Your task to perform on an android device: clear all cookies in the chrome app Image 0: 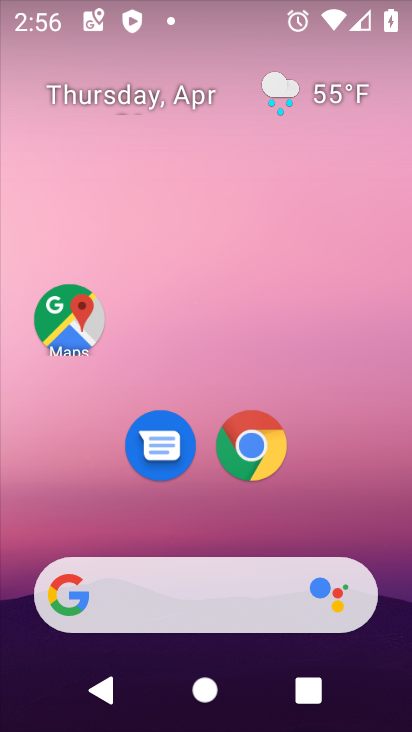
Step 0: click (254, 443)
Your task to perform on an android device: clear all cookies in the chrome app Image 1: 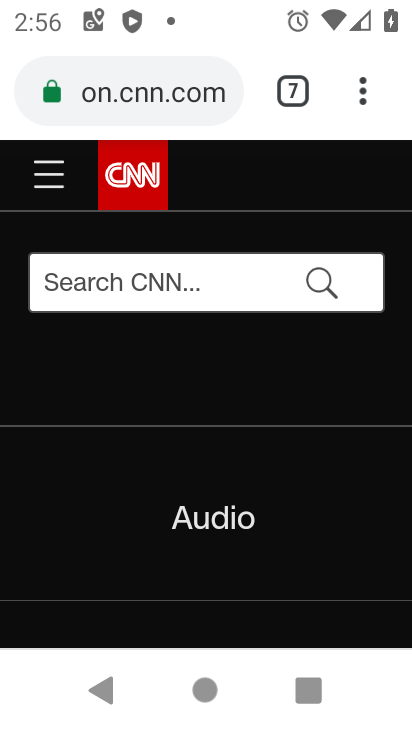
Step 1: click (362, 103)
Your task to perform on an android device: clear all cookies in the chrome app Image 2: 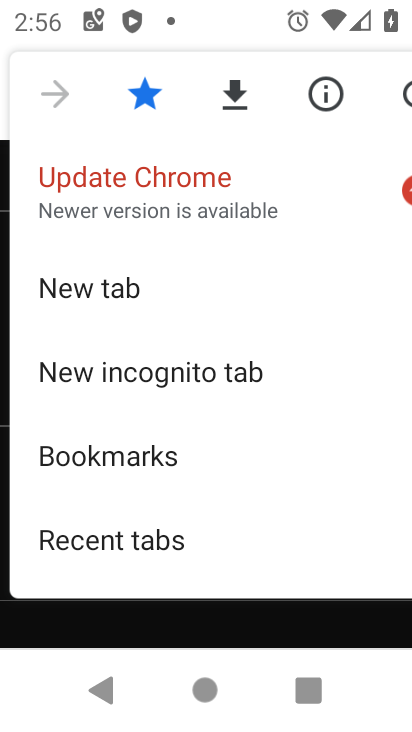
Step 2: drag from (82, 507) to (97, 185)
Your task to perform on an android device: clear all cookies in the chrome app Image 3: 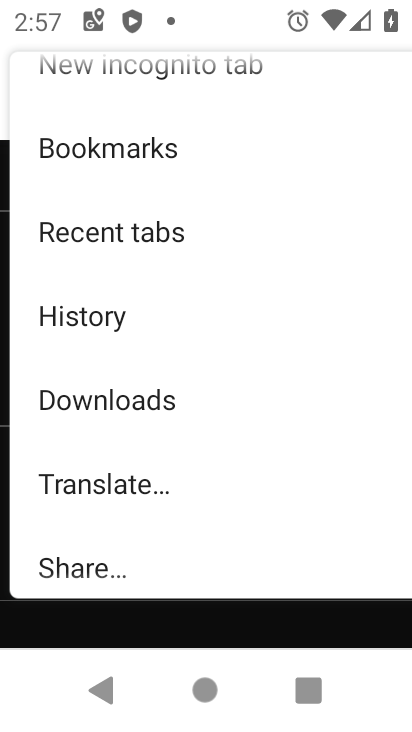
Step 3: click (80, 311)
Your task to perform on an android device: clear all cookies in the chrome app Image 4: 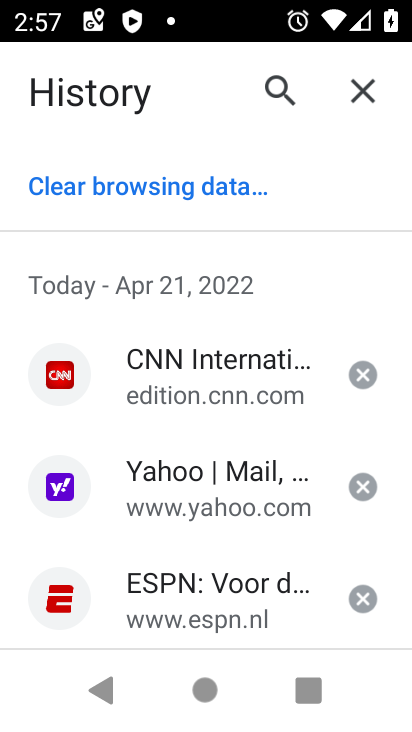
Step 4: click (160, 183)
Your task to perform on an android device: clear all cookies in the chrome app Image 5: 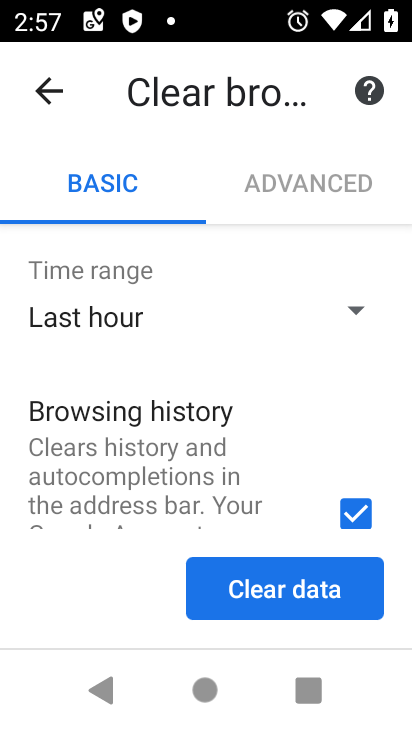
Step 5: drag from (128, 474) to (136, 239)
Your task to perform on an android device: clear all cookies in the chrome app Image 6: 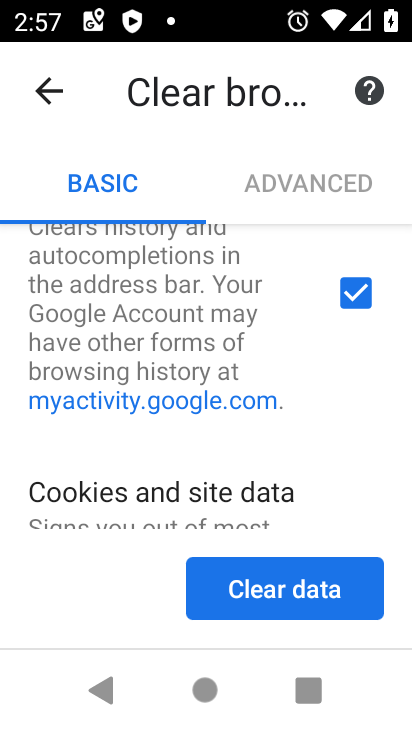
Step 6: click (352, 288)
Your task to perform on an android device: clear all cookies in the chrome app Image 7: 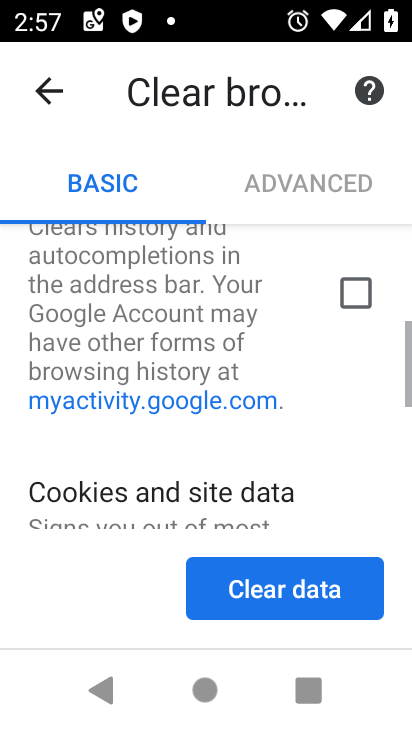
Step 7: drag from (117, 509) to (138, 247)
Your task to perform on an android device: clear all cookies in the chrome app Image 8: 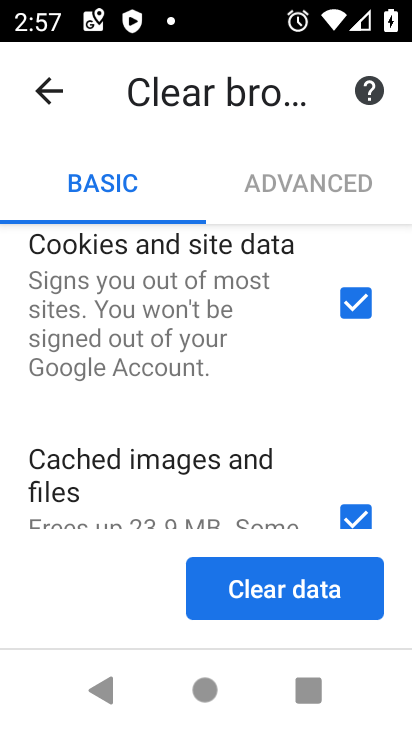
Step 8: click (359, 510)
Your task to perform on an android device: clear all cookies in the chrome app Image 9: 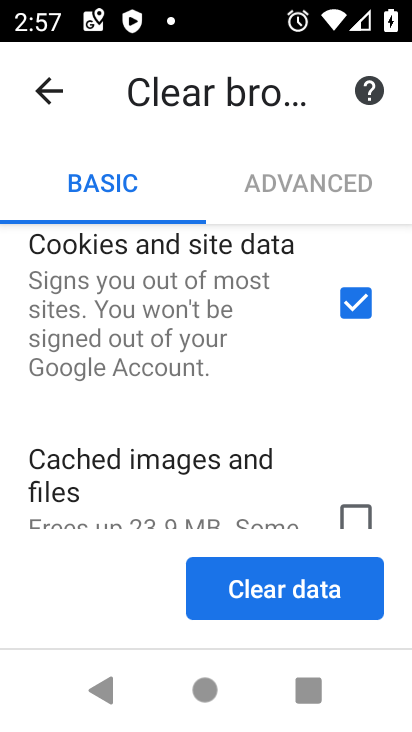
Step 9: click (269, 589)
Your task to perform on an android device: clear all cookies in the chrome app Image 10: 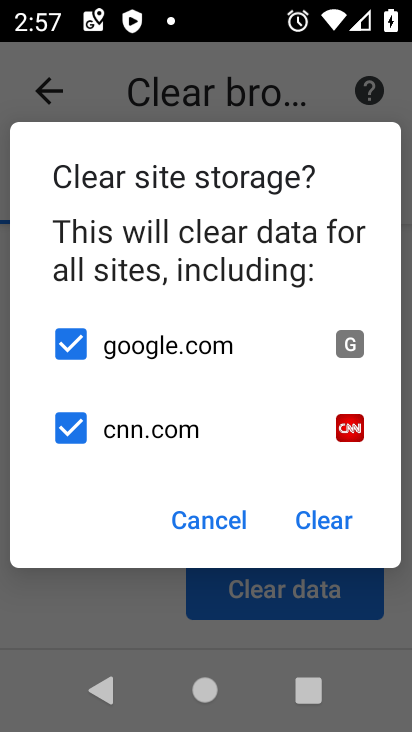
Step 10: click (315, 516)
Your task to perform on an android device: clear all cookies in the chrome app Image 11: 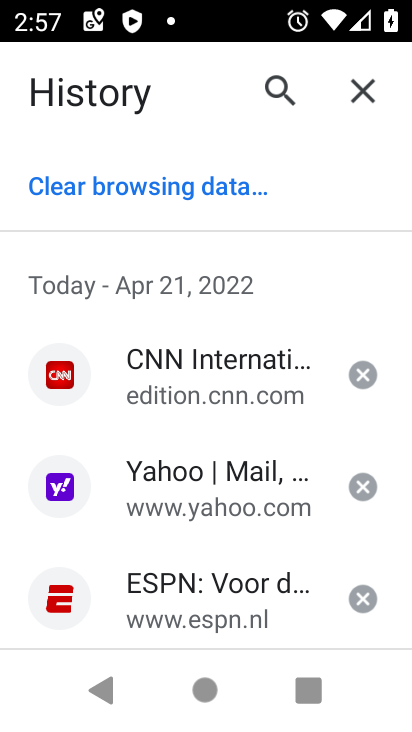
Step 11: task complete